Your task to perform on an android device: uninstall "Flipkart Online Shopping App" Image 0: 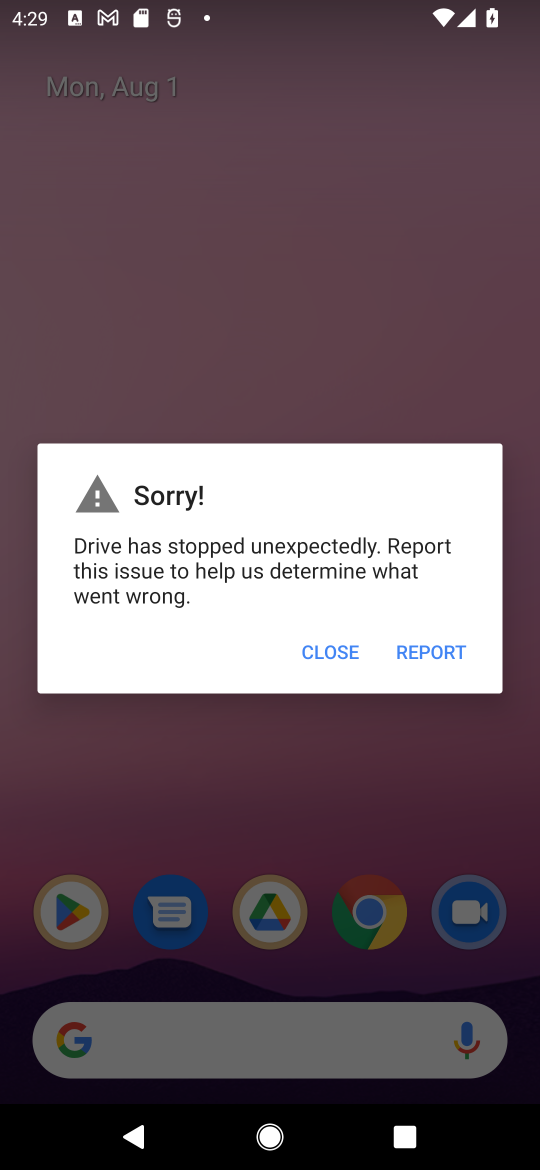
Step 0: press home button
Your task to perform on an android device: uninstall "Flipkart Online Shopping App" Image 1: 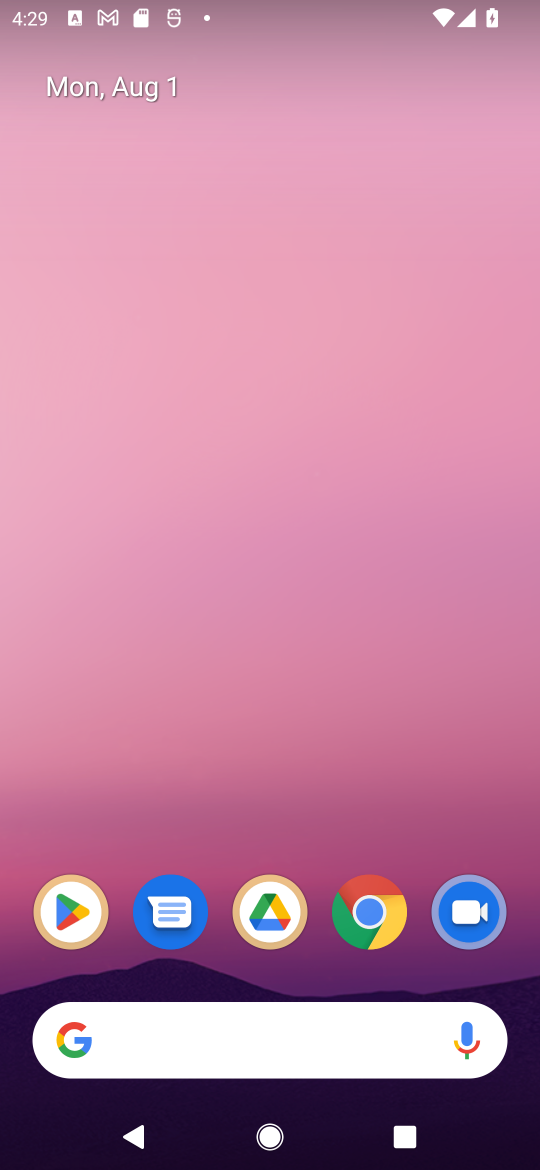
Step 1: click (79, 915)
Your task to perform on an android device: uninstall "Flipkart Online Shopping App" Image 2: 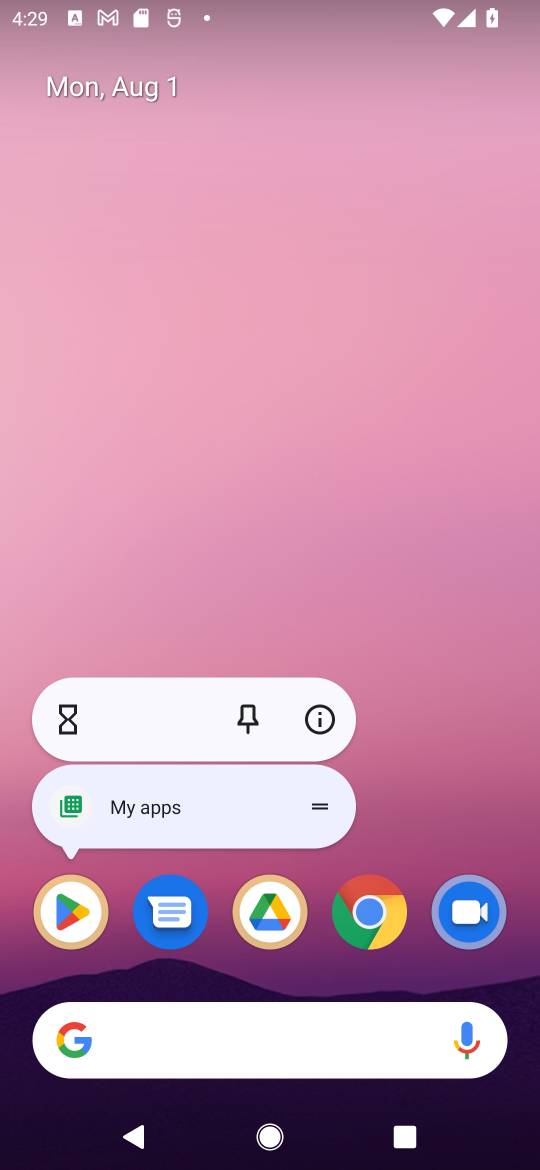
Step 2: click (80, 915)
Your task to perform on an android device: uninstall "Flipkart Online Shopping App" Image 3: 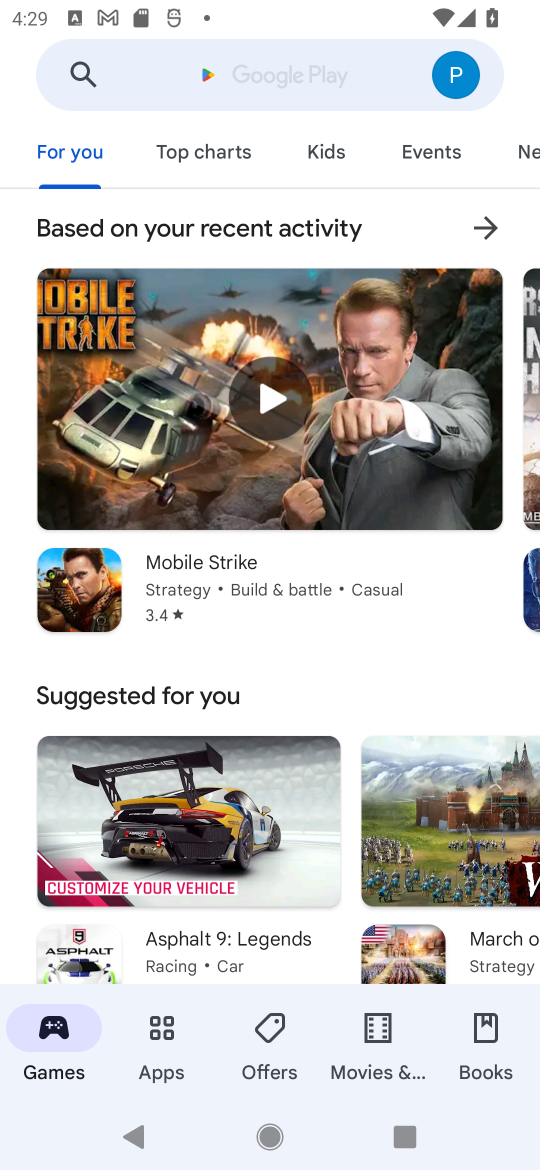
Step 3: click (229, 76)
Your task to perform on an android device: uninstall "Flipkart Online Shopping App" Image 4: 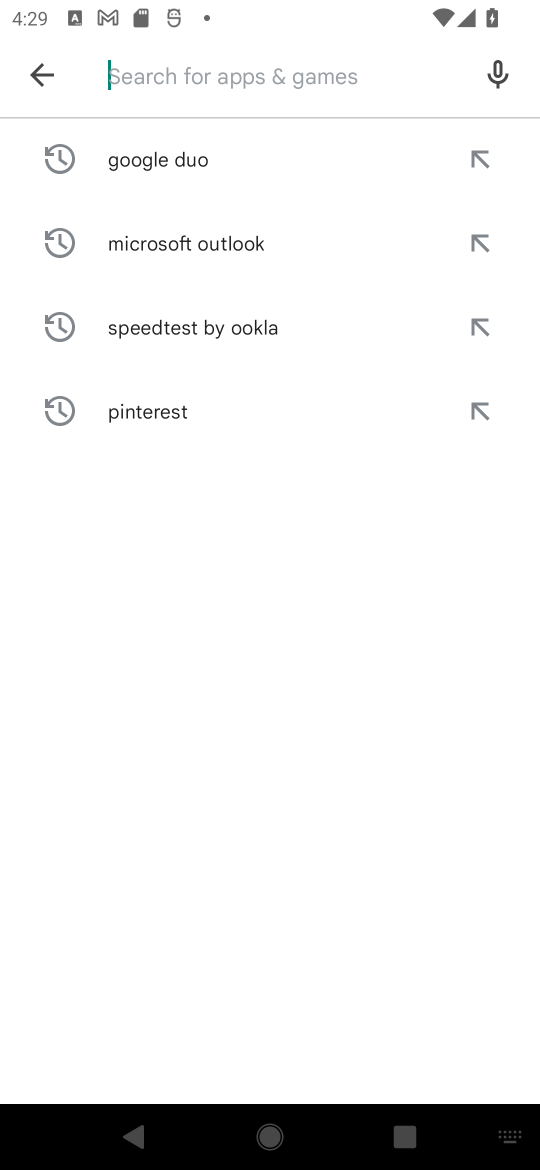
Step 4: type "Flipkart Online Shopping App"
Your task to perform on an android device: uninstall "Flipkart Online Shopping App" Image 5: 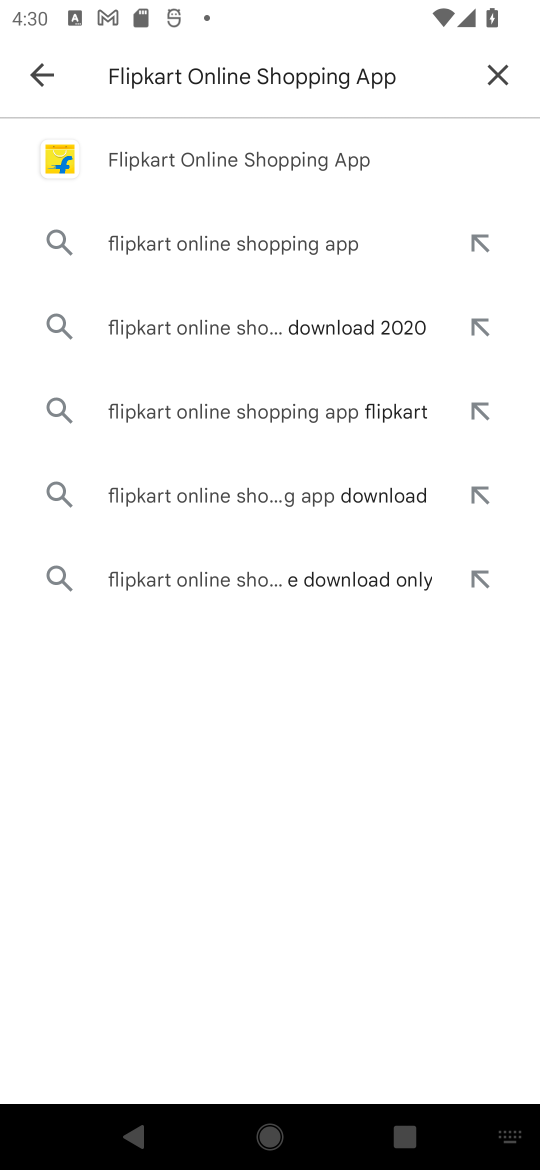
Step 5: click (170, 173)
Your task to perform on an android device: uninstall "Flipkart Online Shopping App" Image 6: 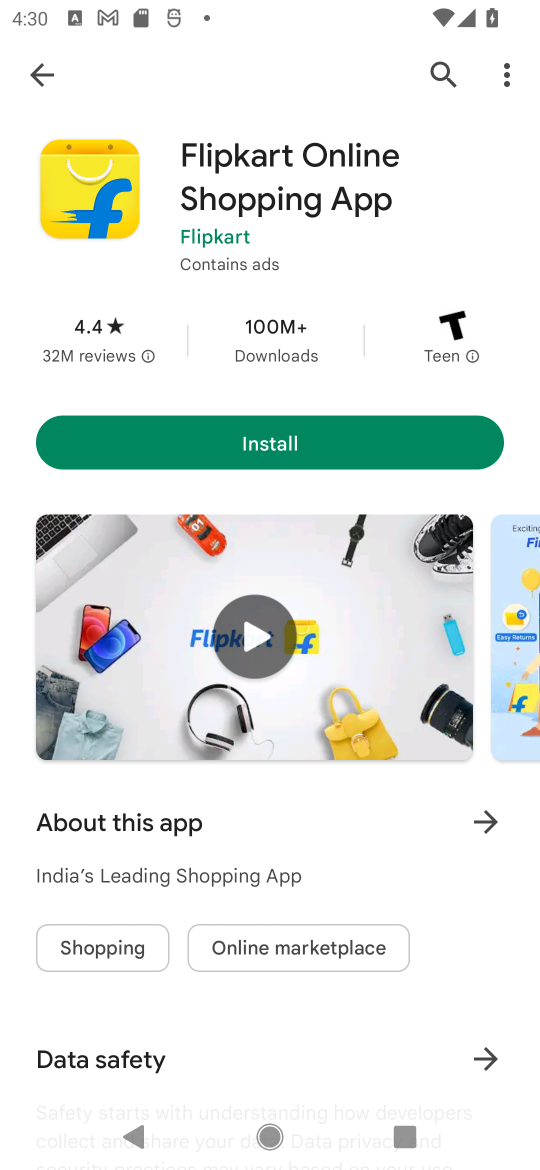
Step 6: task complete